Your task to perform on an android device: View the shopping cart on walmart. Search for jbl charge 4 on walmart, select the first entry, and add it to the cart. Image 0: 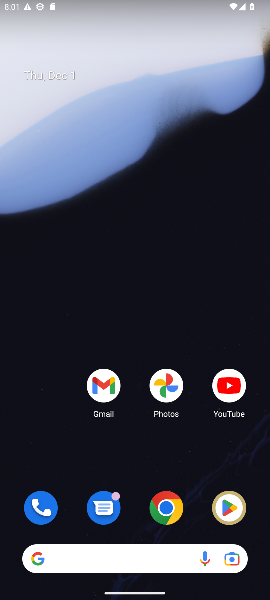
Step 0: click (165, 522)
Your task to perform on an android device: View the shopping cart on walmart. Search for jbl charge 4 on walmart, select the first entry, and add it to the cart. Image 1: 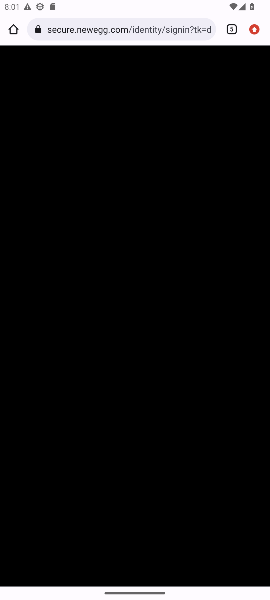
Step 1: click (231, 28)
Your task to perform on an android device: View the shopping cart on walmart. Search for jbl charge 4 on walmart, select the first entry, and add it to the cart. Image 2: 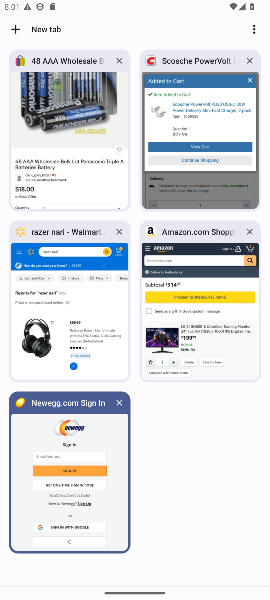
Step 2: click (78, 280)
Your task to perform on an android device: View the shopping cart on walmart. Search for jbl charge 4 on walmart, select the first entry, and add it to the cart. Image 3: 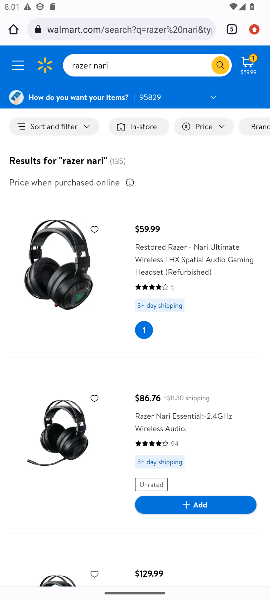
Step 3: click (249, 63)
Your task to perform on an android device: View the shopping cart on walmart. Search for jbl charge 4 on walmart, select the first entry, and add it to the cart. Image 4: 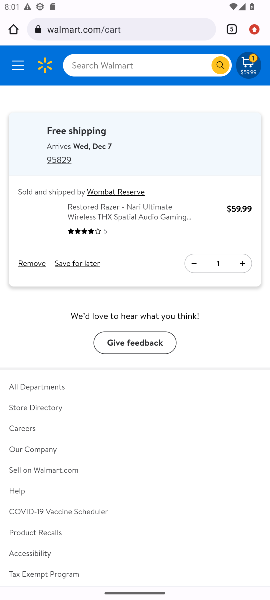
Step 4: click (118, 60)
Your task to perform on an android device: View the shopping cart on walmart. Search for jbl charge 4 on walmart, select the first entry, and add it to the cart. Image 5: 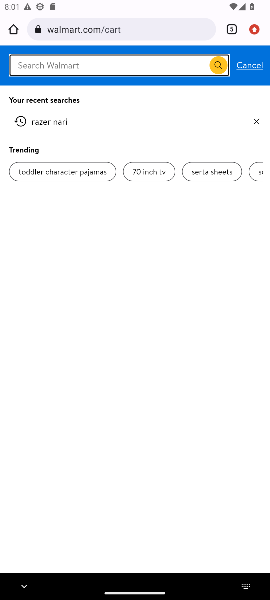
Step 5: type "jbl charge 4"
Your task to perform on an android device: View the shopping cart on walmart. Search for jbl charge 4 on walmart, select the first entry, and add it to the cart. Image 6: 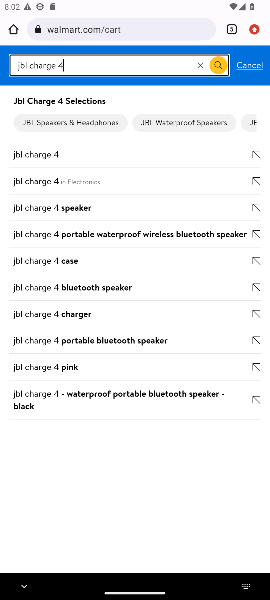
Step 6: click (218, 68)
Your task to perform on an android device: View the shopping cart on walmart. Search for jbl charge 4 on walmart, select the first entry, and add it to the cart. Image 7: 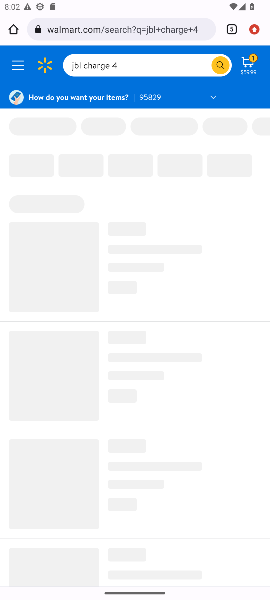
Step 7: drag from (132, 444) to (154, 417)
Your task to perform on an android device: View the shopping cart on walmart. Search for jbl charge 4 on walmart, select the first entry, and add it to the cart. Image 8: 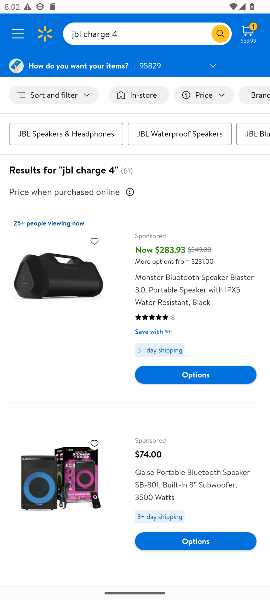
Step 8: click (70, 270)
Your task to perform on an android device: View the shopping cart on walmart. Search for jbl charge 4 on walmart, select the first entry, and add it to the cart. Image 9: 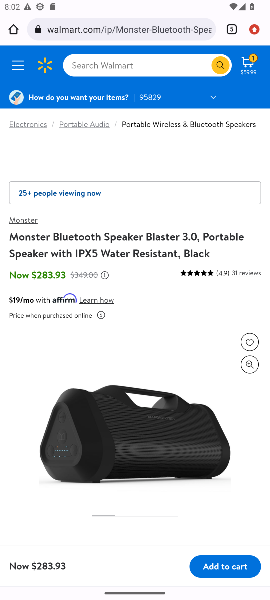
Step 9: click (216, 571)
Your task to perform on an android device: View the shopping cart on walmart. Search for jbl charge 4 on walmart, select the first entry, and add it to the cart. Image 10: 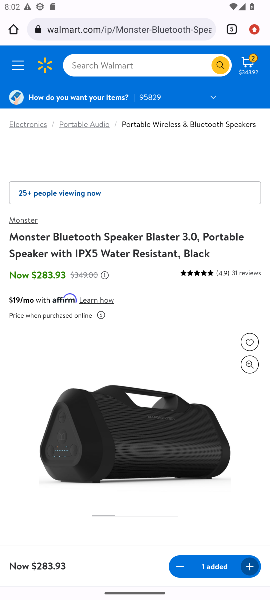
Step 10: task complete